Your task to perform on an android device: Open Chrome and go to the settings page Image 0: 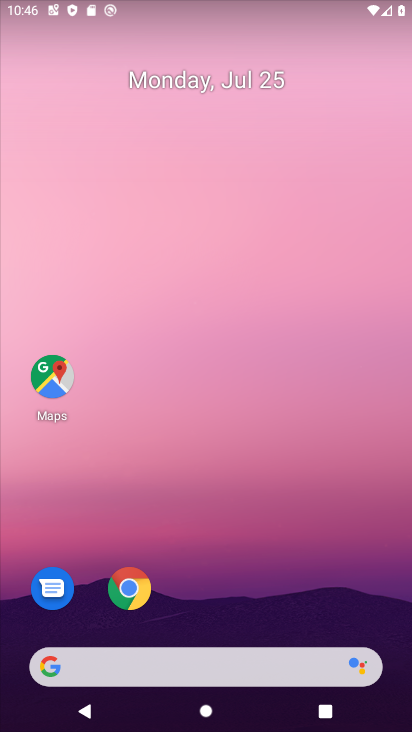
Step 0: click (126, 590)
Your task to perform on an android device: Open Chrome and go to the settings page Image 1: 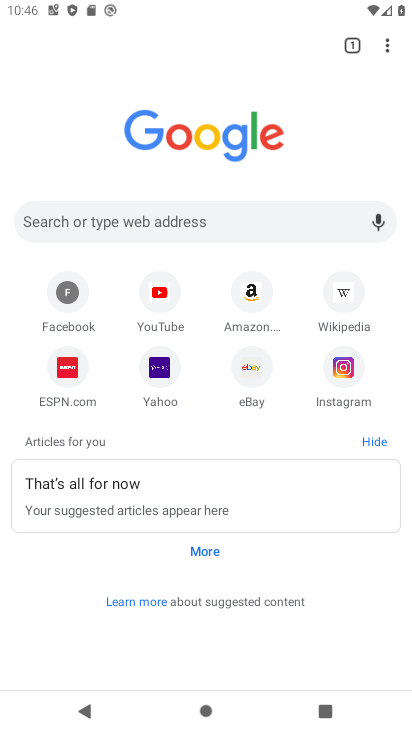
Step 1: click (387, 36)
Your task to perform on an android device: Open Chrome and go to the settings page Image 2: 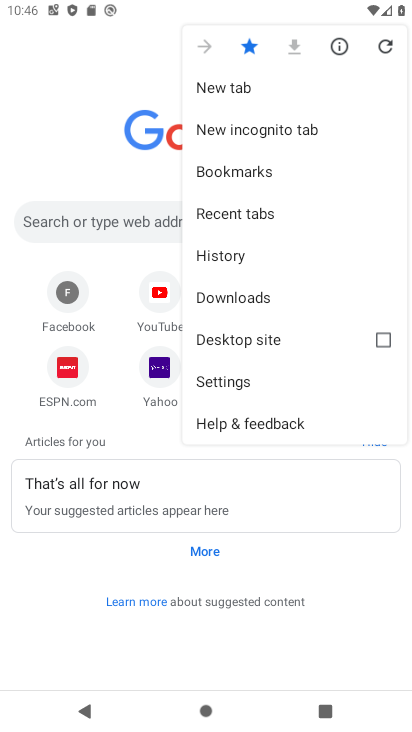
Step 2: click (251, 383)
Your task to perform on an android device: Open Chrome and go to the settings page Image 3: 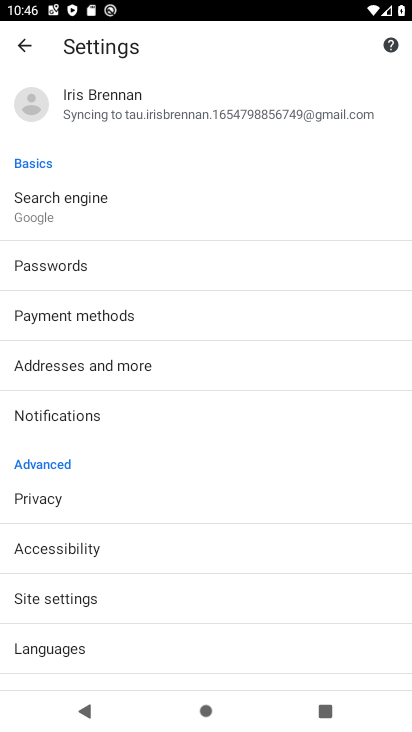
Step 3: task complete